Your task to perform on an android device: Open ESPN.com Image 0: 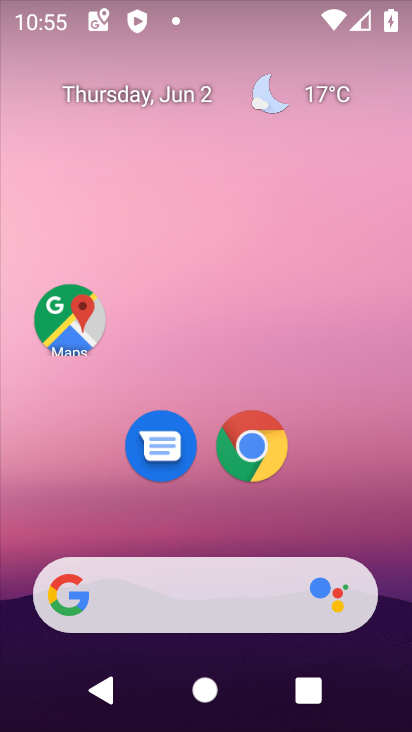
Step 0: click (256, 443)
Your task to perform on an android device: Open ESPN.com Image 1: 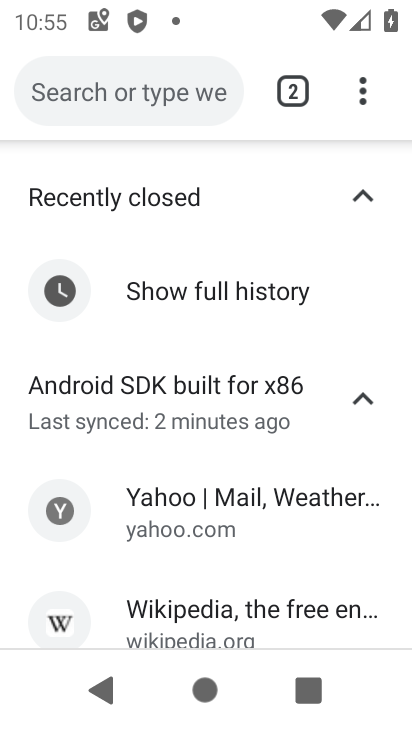
Step 1: click (174, 85)
Your task to perform on an android device: Open ESPN.com Image 2: 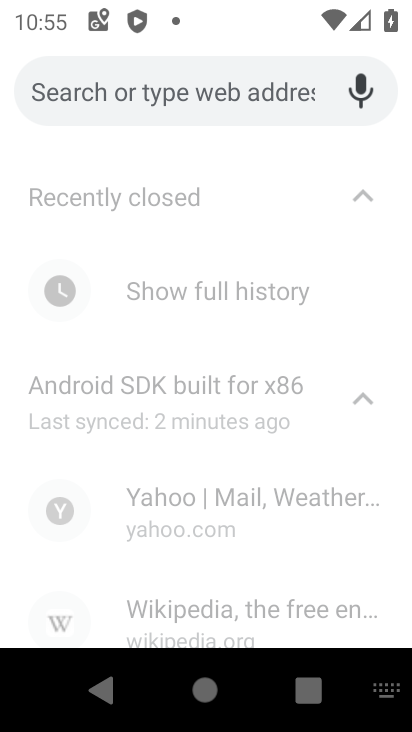
Step 2: type "espn.com"
Your task to perform on an android device: Open ESPN.com Image 3: 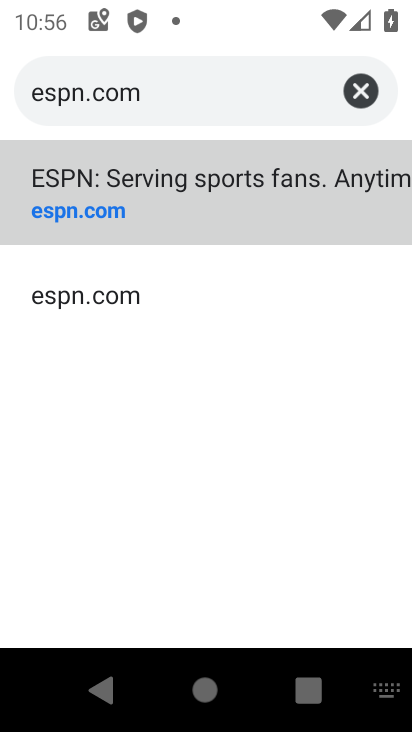
Step 3: click (76, 214)
Your task to perform on an android device: Open ESPN.com Image 4: 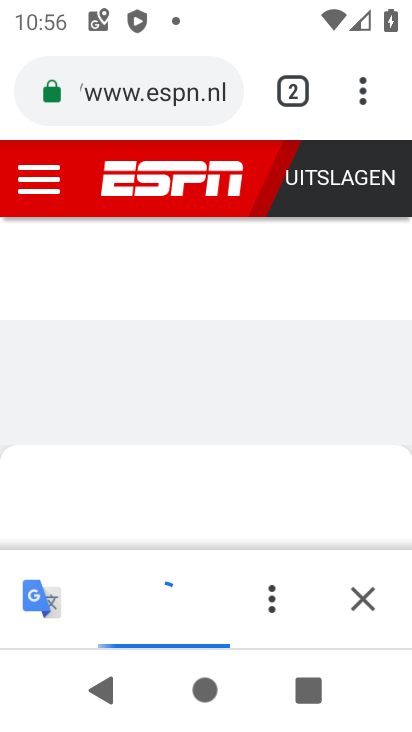
Step 4: task complete